Your task to perform on an android device: Open settings on Google Maps Image 0: 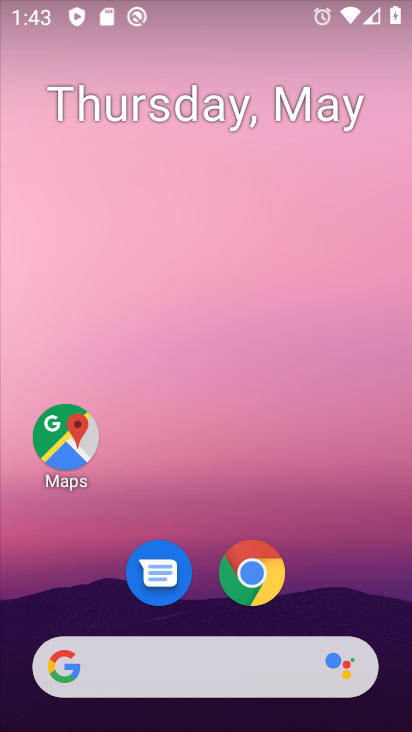
Step 0: click (67, 431)
Your task to perform on an android device: Open settings on Google Maps Image 1: 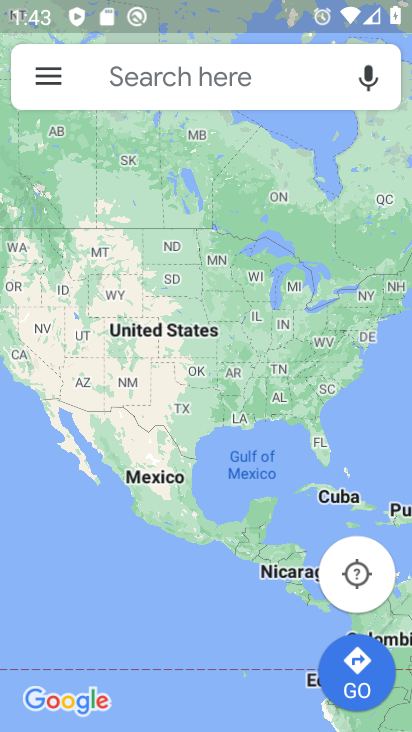
Step 1: click (45, 83)
Your task to perform on an android device: Open settings on Google Maps Image 2: 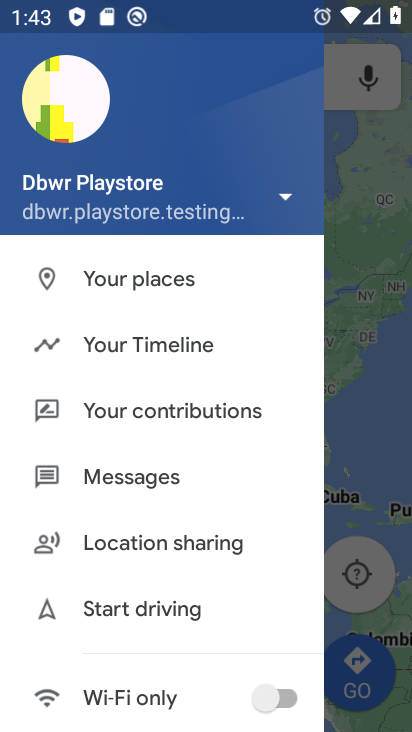
Step 2: drag from (292, 620) to (272, 336)
Your task to perform on an android device: Open settings on Google Maps Image 3: 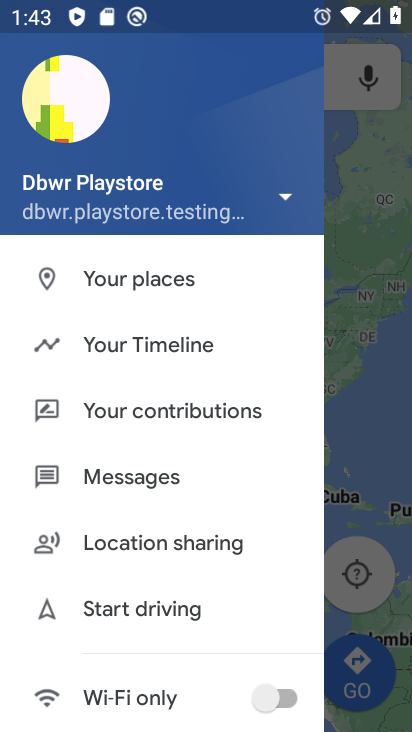
Step 3: drag from (221, 682) to (235, 402)
Your task to perform on an android device: Open settings on Google Maps Image 4: 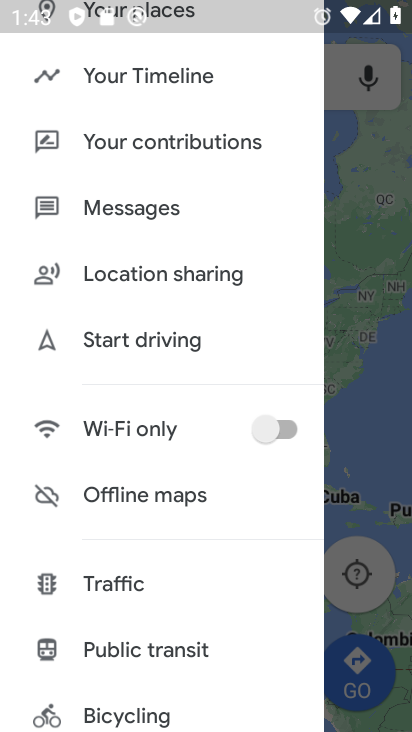
Step 4: drag from (225, 691) to (287, 394)
Your task to perform on an android device: Open settings on Google Maps Image 5: 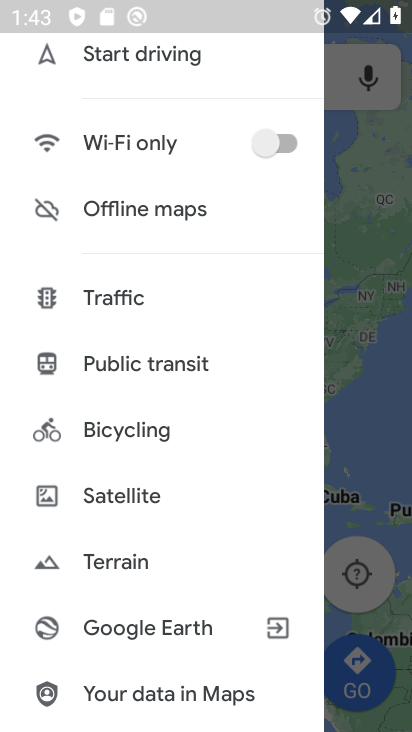
Step 5: drag from (205, 707) to (274, 393)
Your task to perform on an android device: Open settings on Google Maps Image 6: 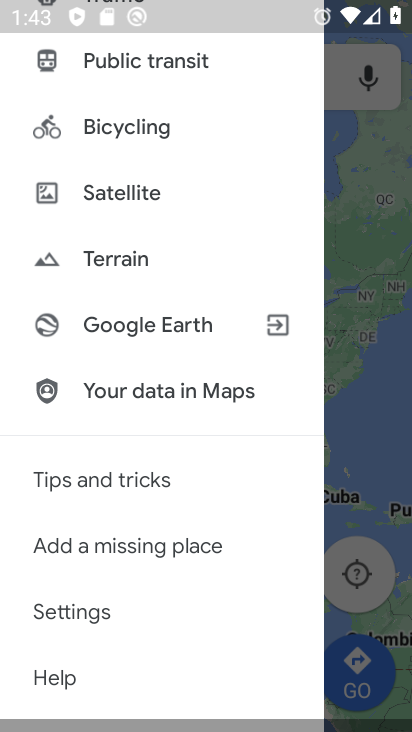
Step 6: click (74, 609)
Your task to perform on an android device: Open settings on Google Maps Image 7: 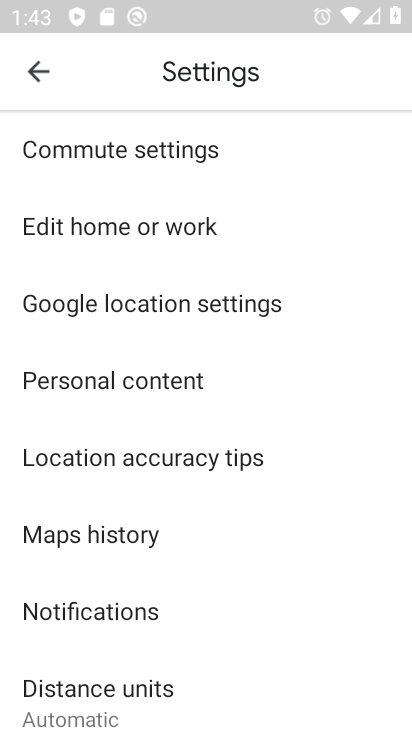
Step 7: task complete